Your task to perform on an android device: check the backup settings in the google photos Image 0: 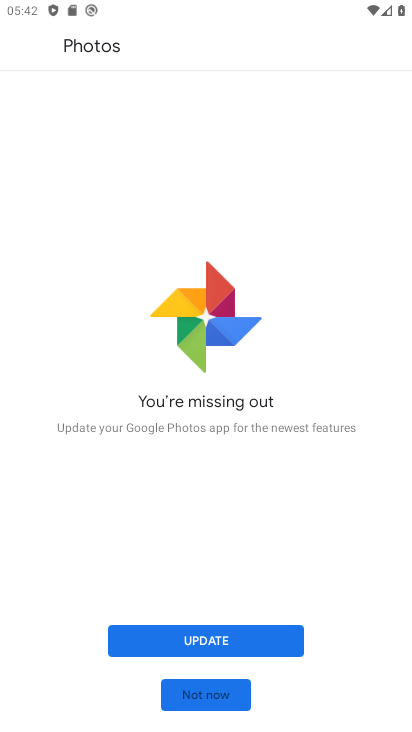
Step 0: click (201, 700)
Your task to perform on an android device: check the backup settings in the google photos Image 1: 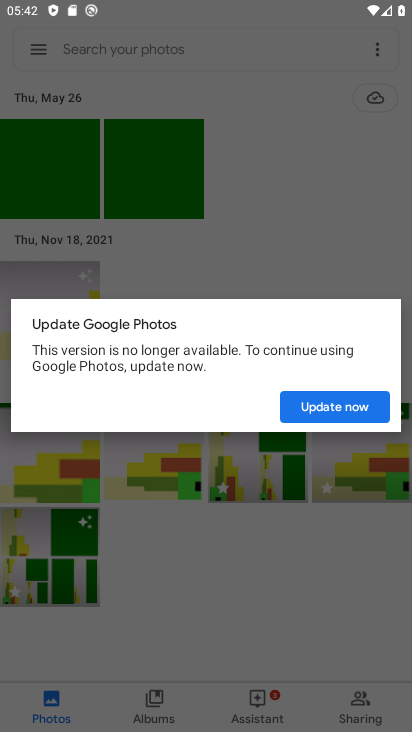
Step 1: click (339, 406)
Your task to perform on an android device: check the backup settings in the google photos Image 2: 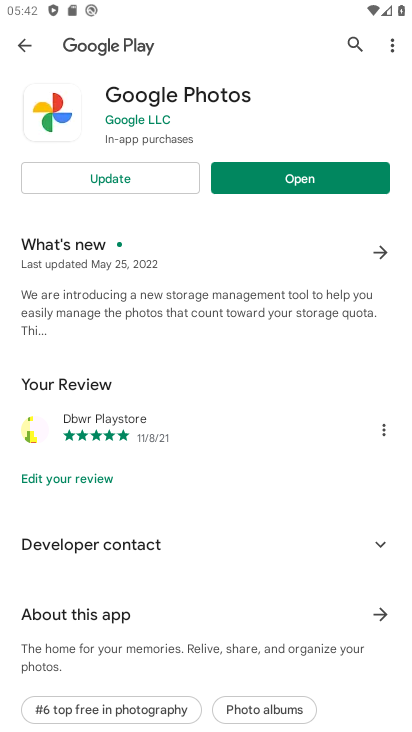
Step 2: click (284, 157)
Your task to perform on an android device: check the backup settings in the google photos Image 3: 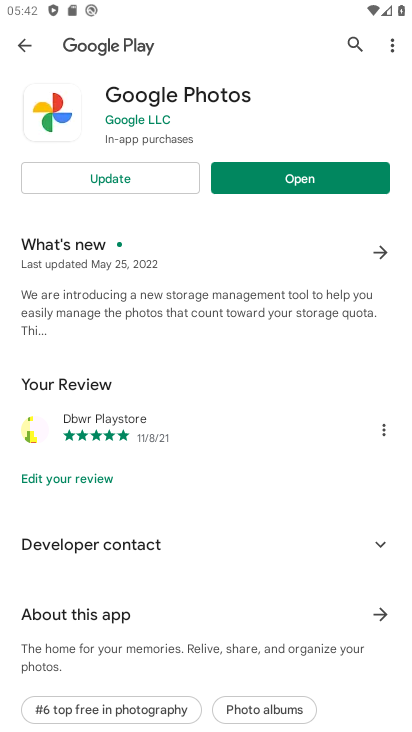
Step 3: click (284, 173)
Your task to perform on an android device: check the backup settings in the google photos Image 4: 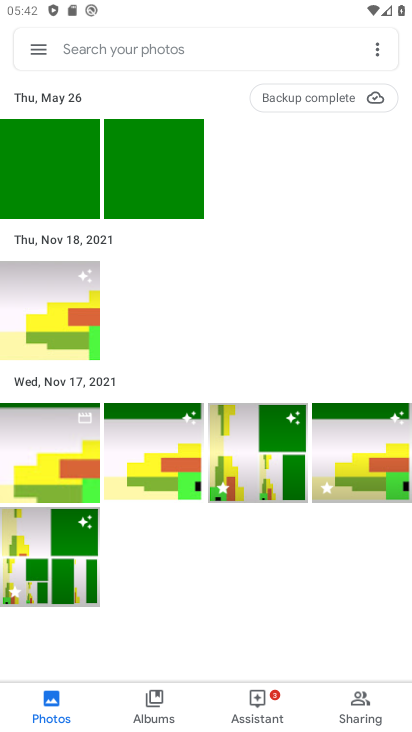
Step 4: click (29, 53)
Your task to perform on an android device: check the backup settings in the google photos Image 5: 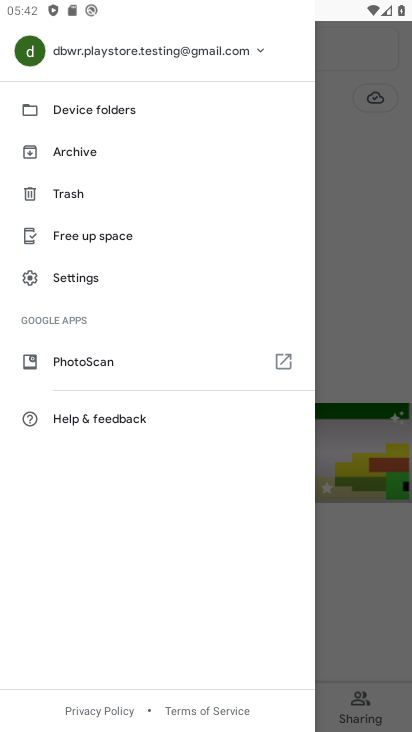
Step 5: click (91, 281)
Your task to perform on an android device: check the backup settings in the google photos Image 6: 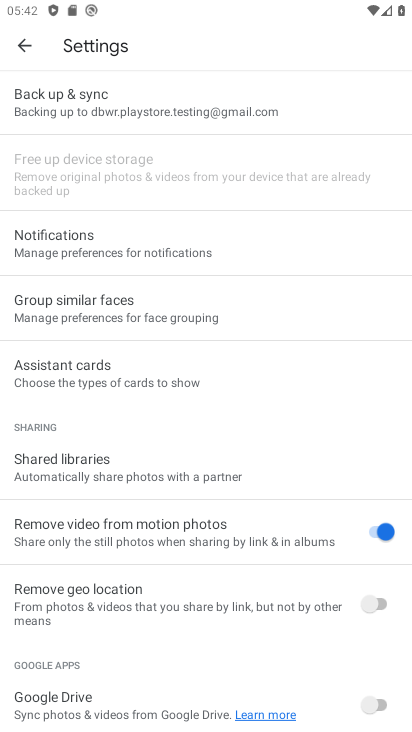
Step 6: click (107, 128)
Your task to perform on an android device: check the backup settings in the google photos Image 7: 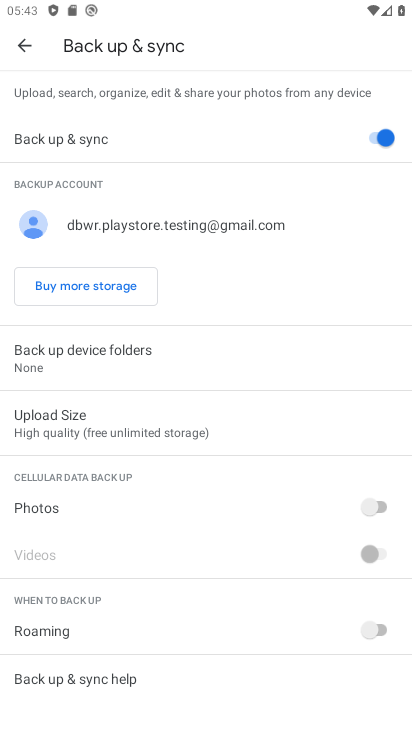
Step 7: task complete